Your task to perform on an android device: toggle airplane mode Image 0: 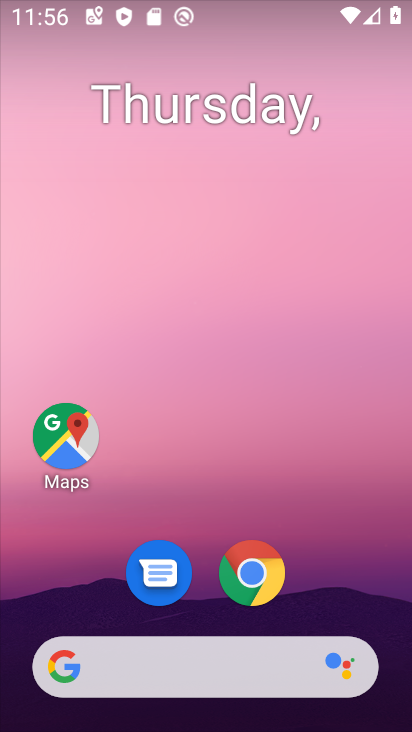
Step 0: drag from (209, 538) to (198, 99)
Your task to perform on an android device: toggle airplane mode Image 1: 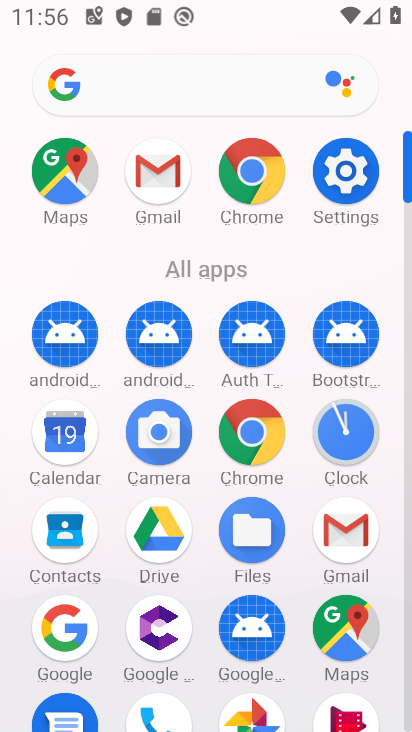
Step 1: click (355, 180)
Your task to perform on an android device: toggle airplane mode Image 2: 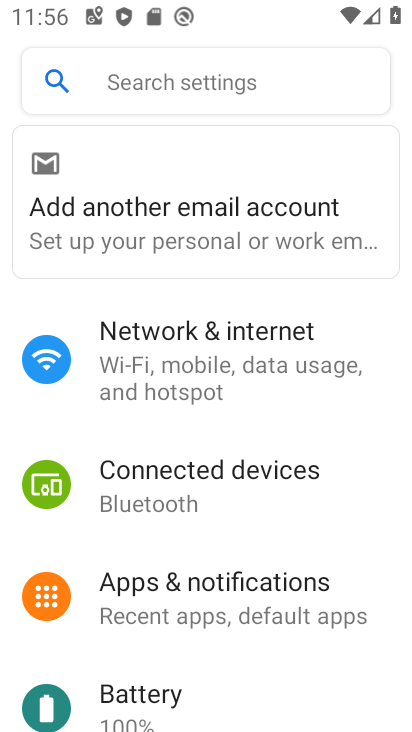
Step 2: click (181, 361)
Your task to perform on an android device: toggle airplane mode Image 3: 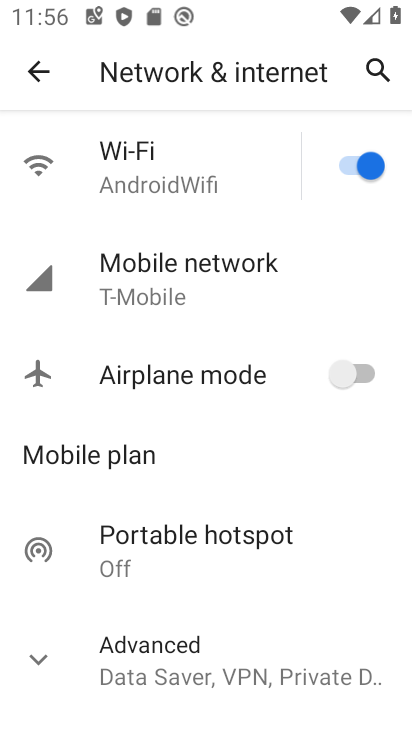
Step 3: click (338, 377)
Your task to perform on an android device: toggle airplane mode Image 4: 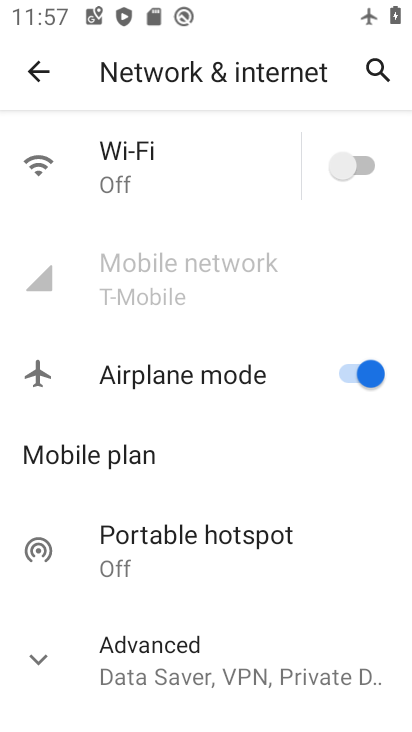
Step 4: task complete